Your task to perform on an android device: Go to battery settings Image 0: 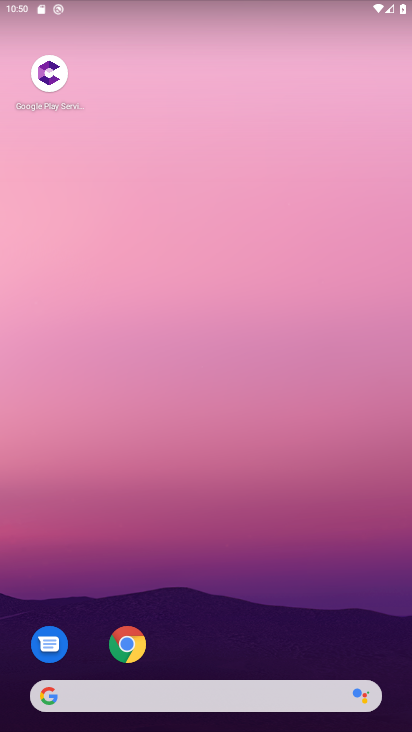
Step 0: drag from (245, 629) to (236, 156)
Your task to perform on an android device: Go to battery settings Image 1: 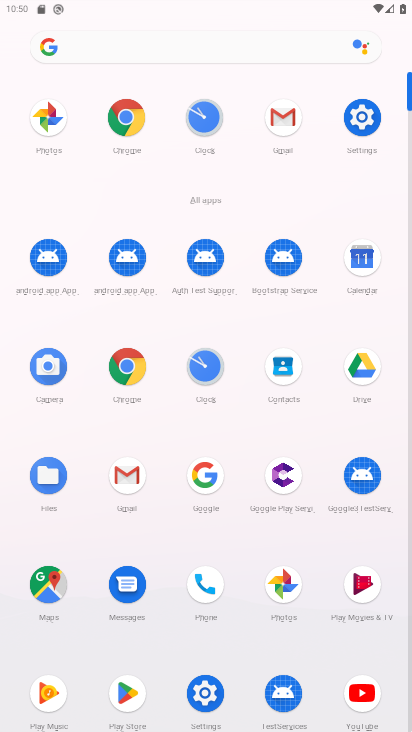
Step 1: click (369, 118)
Your task to perform on an android device: Go to battery settings Image 2: 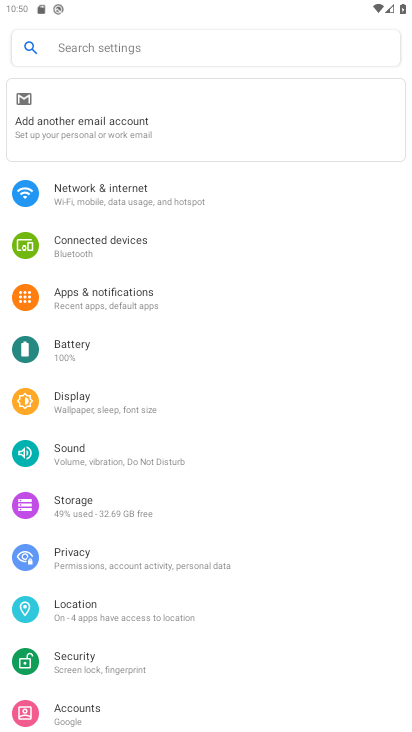
Step 2: click (119, 350)
Your task to perform on an android device: Go to battery settings Image 3: 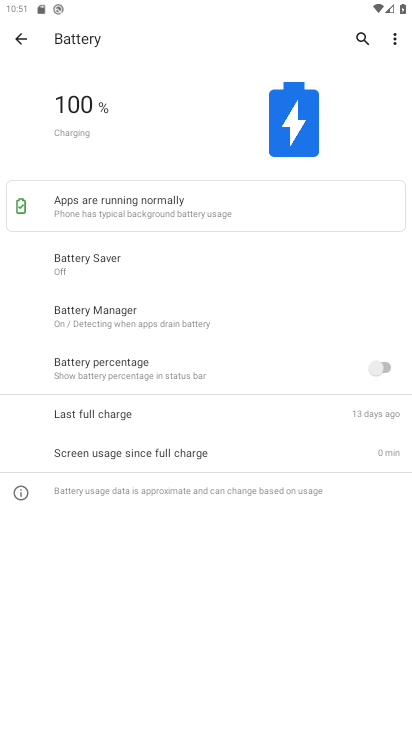
Step 3: task complete